Your task to perform on an android device: Open calendar and show me the third week of next month Image 0: 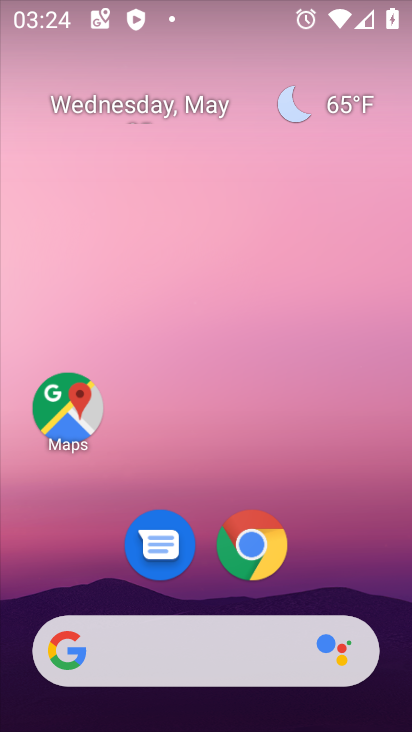
Step 0: drag from (327, 576) to (146, 95)
Your task to perform on an android device: Open calendar and show me the third week of next month Image 1: 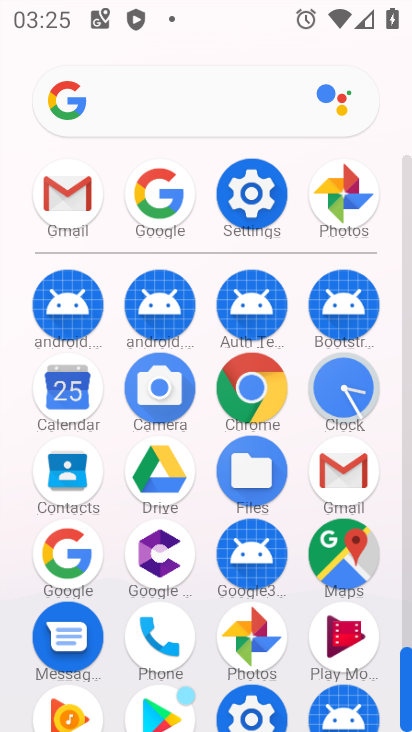
Step 1: click (87, 392)
Your task to perform on an android device: Open calendar and show me the third week of next month Image 2: 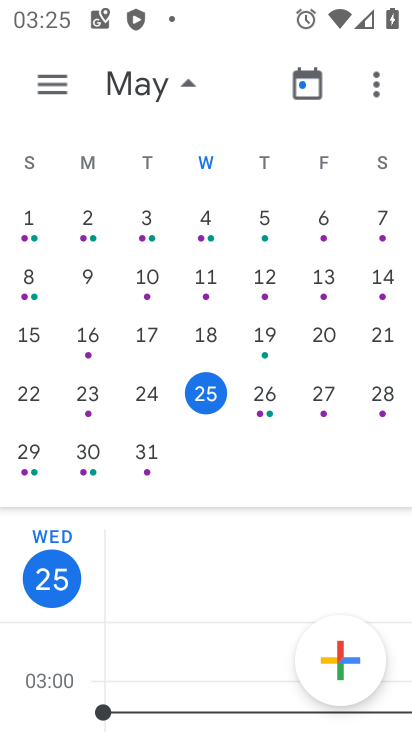
Step 2: click (172, 85)
Your task to perform on an android device: Open calendar and show me the third week of next month Image 3: 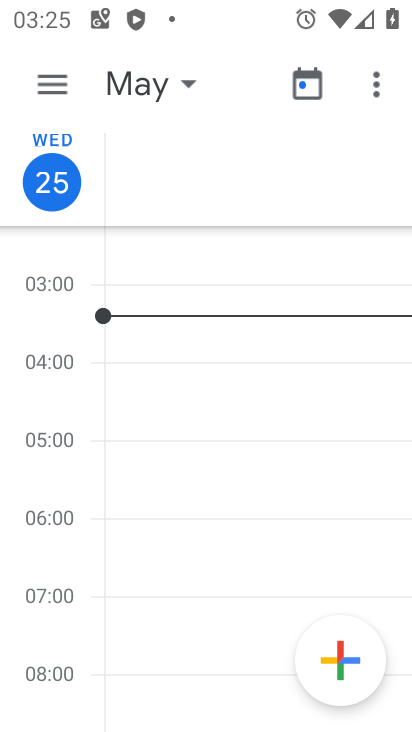
Step 3: click (176, 96)
Your task to perform on an android device: Open calendar and show me the third week of next month Image 4: 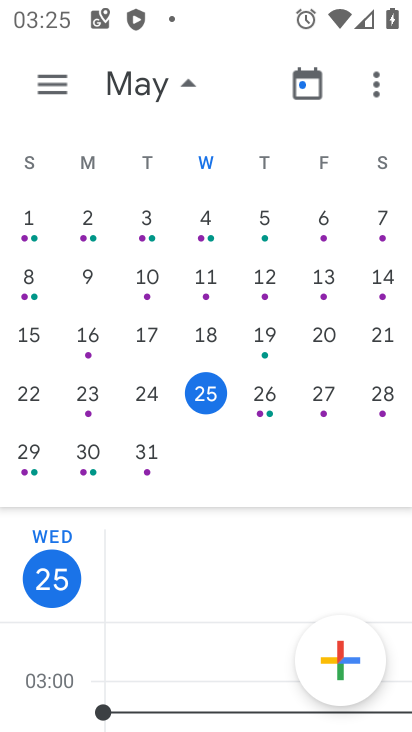
Step 4: drag from (335, 318) to (0, 330)
Your task to perform on an android device: Open calendar and show me the third week of next month Image 5: 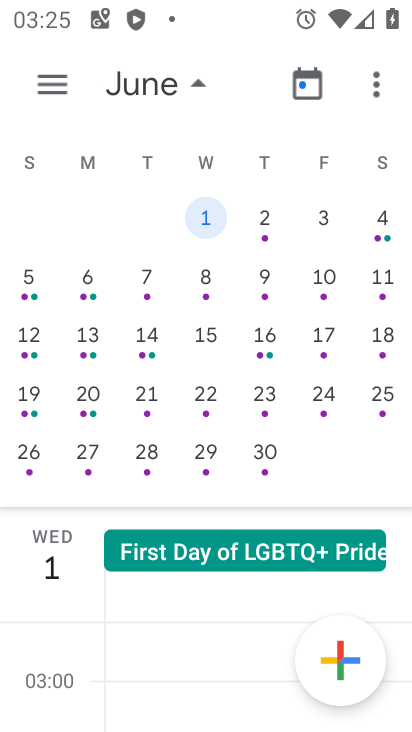
Step 5: click (48, 71)
Your task to perform on an android device: Open calendar and show me the third week of next month Image 6: 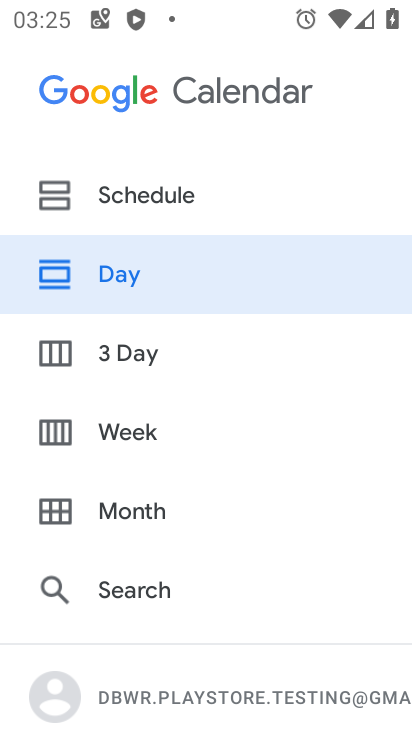
Step 6: click (127, 426)
Your task to perform on an android device: Open calendar and show me the third week of next month Image 7: 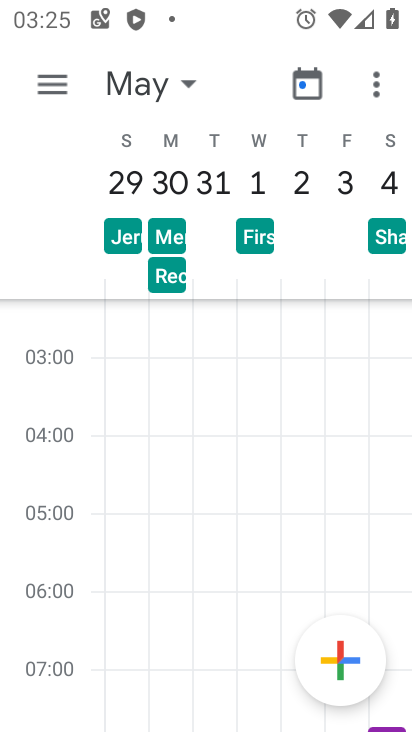
Step 7: click (177, 82)
Your task to perform on an android device: Open calendar and show me the third week of next month Image 8: 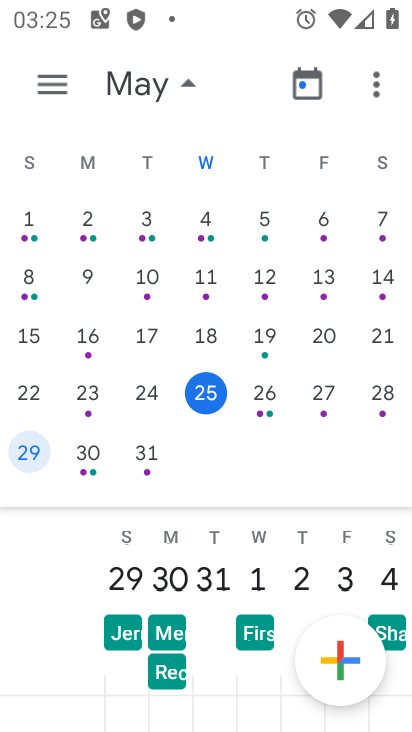
Step 8: drag from (344, 291) to (6, 359)
Your task to perform on an android device: Open calendar and show me the third week of next month Image 9: 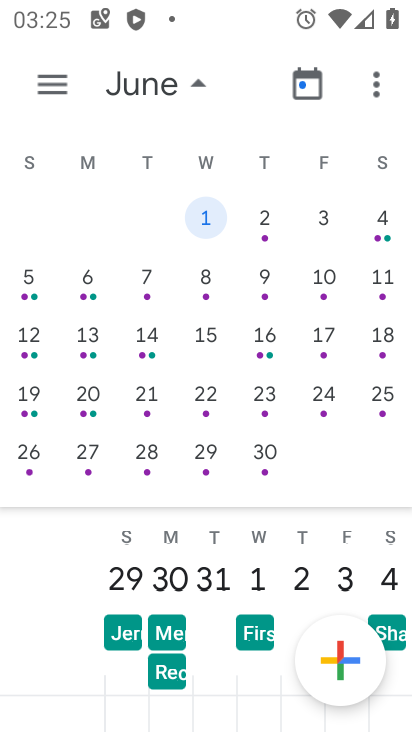
Step 9: click (39, 341)
Your task to perform on an android device: Open calendar and show me the third week of next month Image 10: 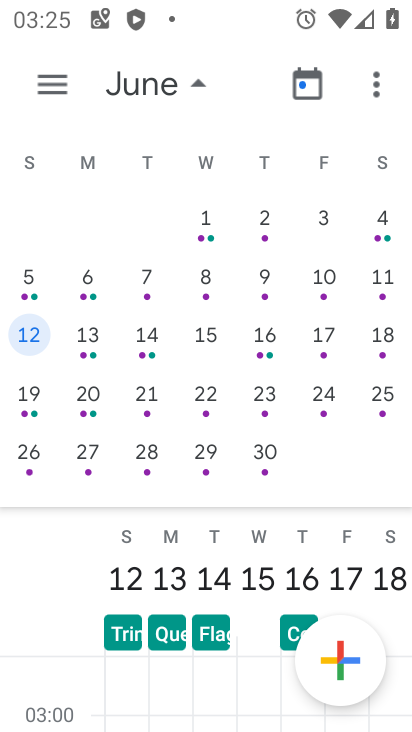
Step 10: task complete